Your task to perform on an android device: toggle improve location accuracy Image 0: 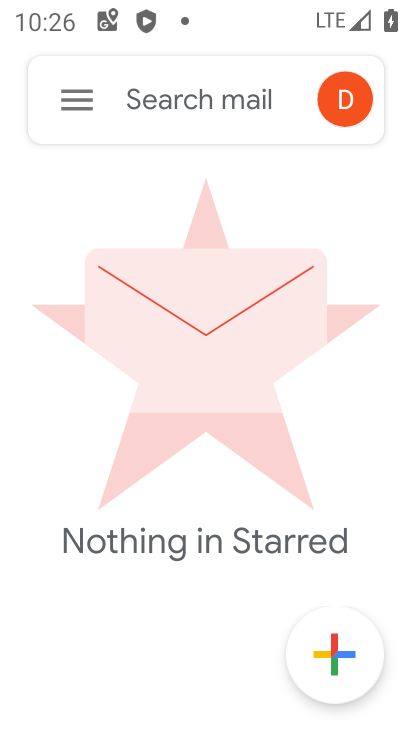
Step 0: press home button
Your task to perform on an android device: toggle improve location accuracy Image 1: 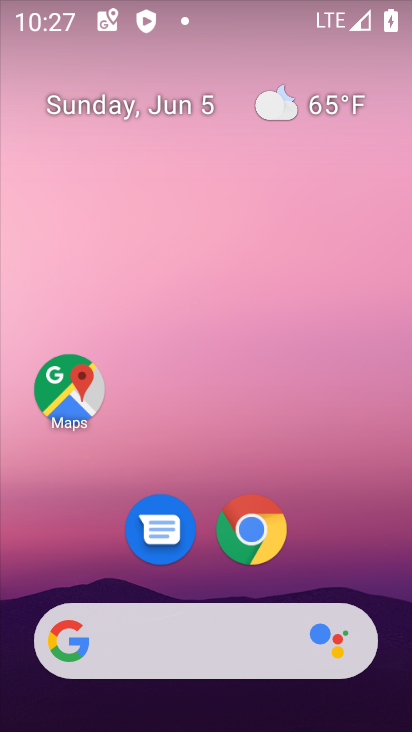
Step 1: click (83, 386)
Your task to perform on an android device: toggle improve location accuracy Image 2: 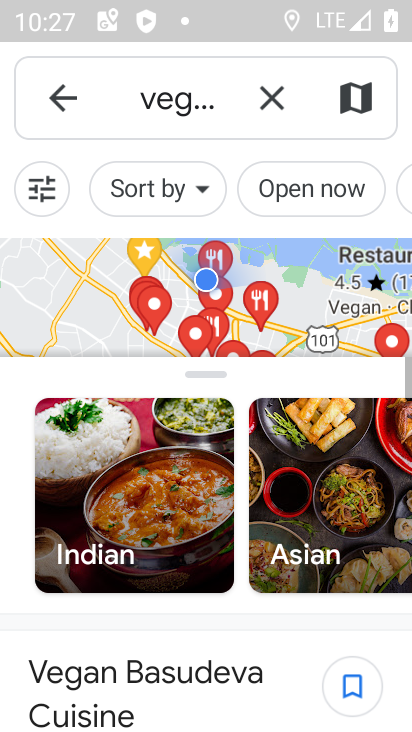
Step 2: click (66, 95)
Your task to perform on an android device: toggle improve location accuracy Image 3: 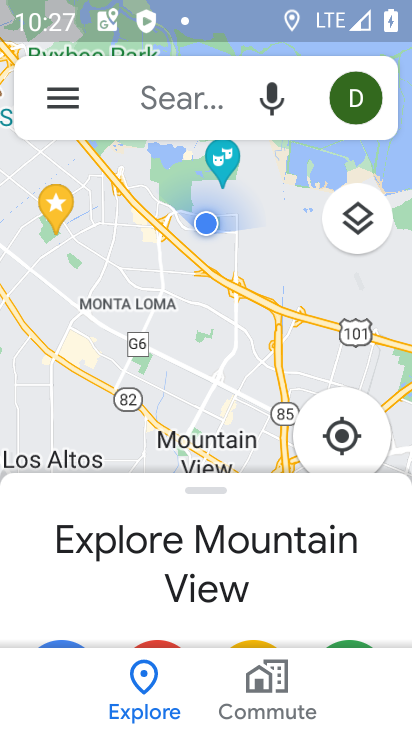
Step 3: click (78, 87)
Your task to perform on an android device: toggle improve location accuracy Image 4: 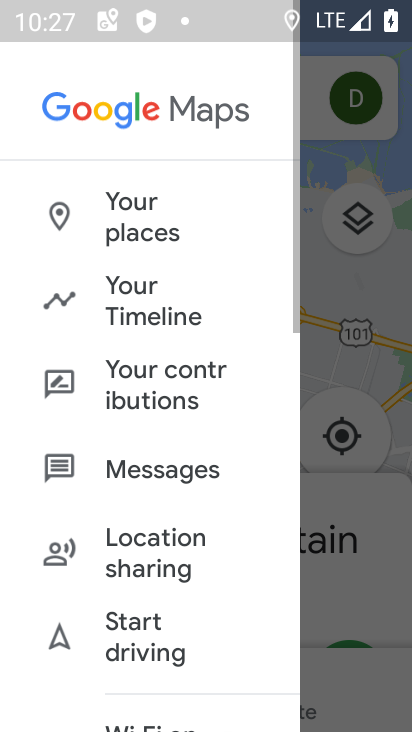
Step 4: drag from (147, 649) to (245, 35)
Your task to perform on an android device: toggle improve location accuracy Image 5: 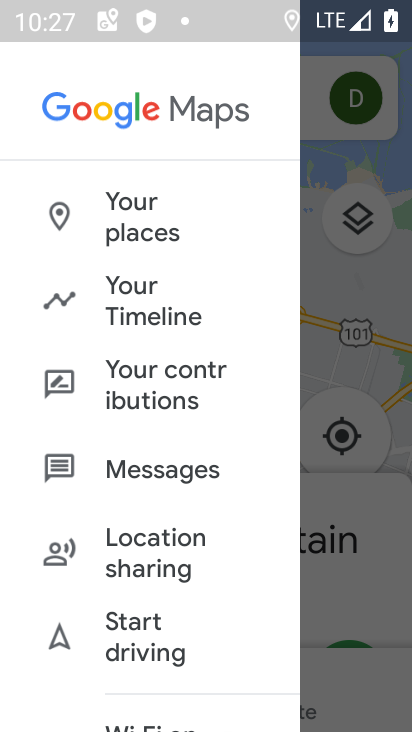
Step 5: drag from (179, 666) to (230, 5)
Your task to perform on an android device: toggle improve location accuracy Image 6: 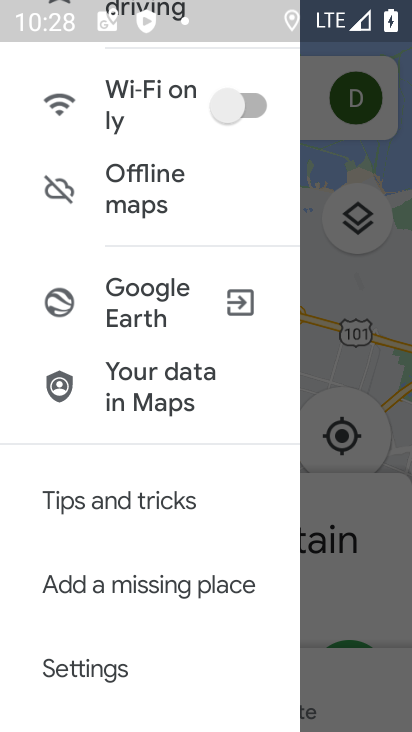
Step 6: click (127, 683)
Your task to perform on an android device: toggle improve location accuracy Image 7: 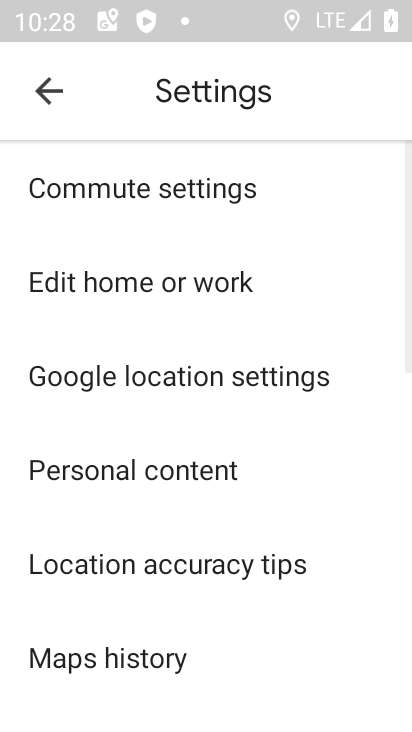
Step 7: click (244, 381)
Your task to perform on an android device: toggle improve location accuracy Image 8: 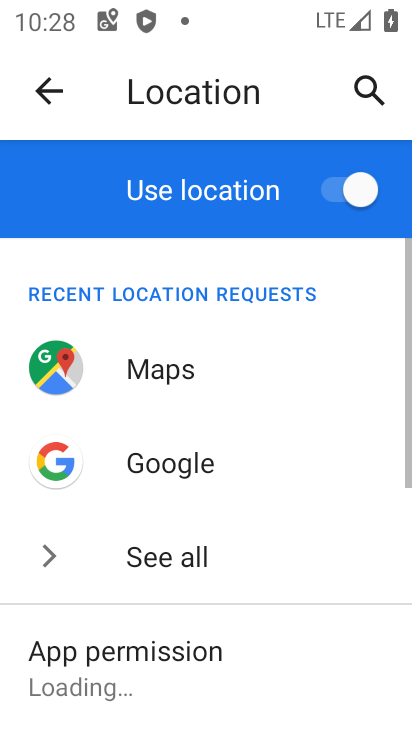
Step 8: drag from (235, 654) to (291, 0)
Your task to perform on an android device: toggle improve location accuracy Image 9: 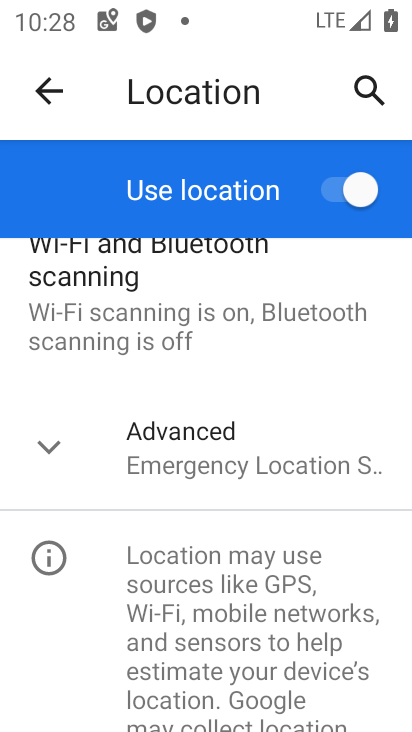
Step 9: click (257, 476)
Your task to perform on an android device: toggle improve location accuracy Image 10: 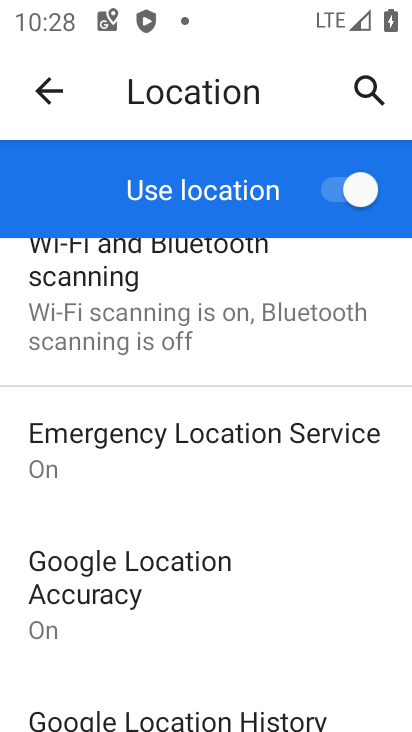
Step 10: click (206, 584)
Your task to perform on an android device: toggle improve location accuracy Image 11: 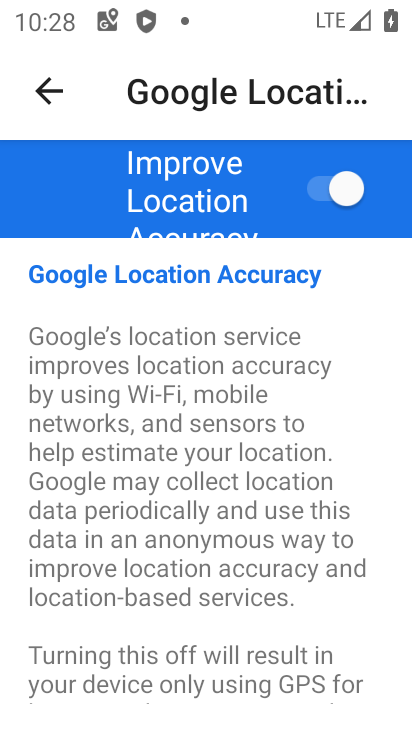
Step 11: click (351, 180)
Your task to perform on an android device: toggle improve location accuracy Image 12: 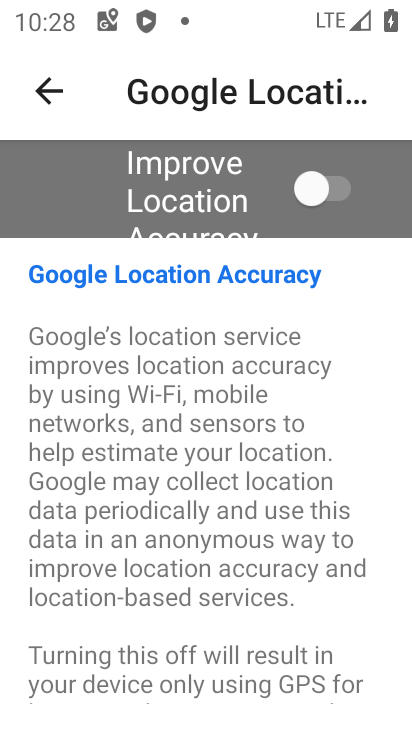
Step 12: task complete